Your task to perform on an android device: toggle improve location accuracy Image 0: 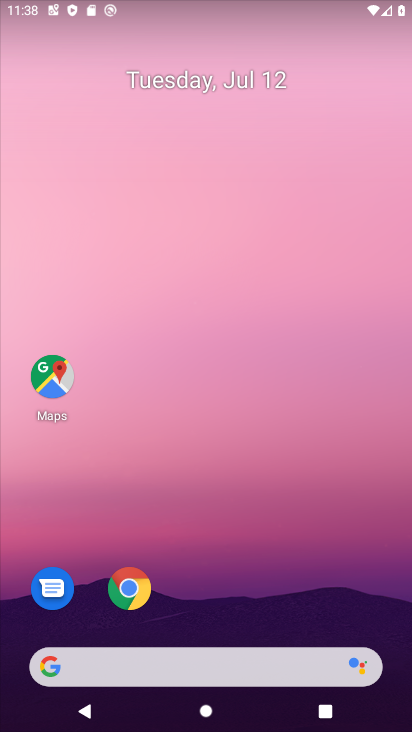
Step 0: drag from (391, 682) to (351, 155)
Your task to perform on an android device: toggle improve location accuracy Image 1: 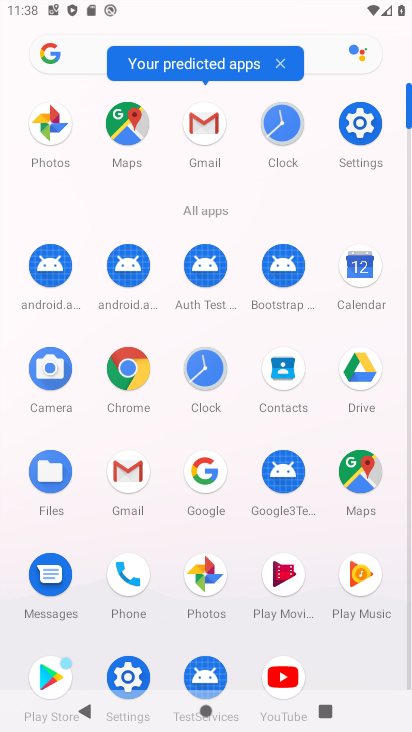
Step 1: click (358, 124)
Your task to perform on an android device: toggle improve location accuracy Image 2: 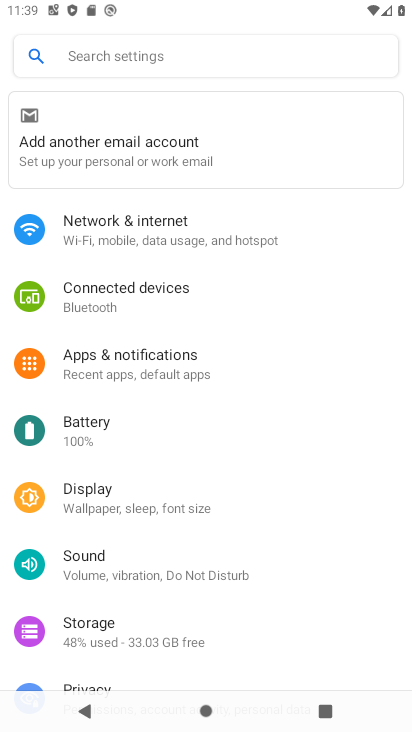
Step 2: drag from (252, 654) to (249, 307)
Your task to perform on an android device: toggle improve location accuracy Image 3: 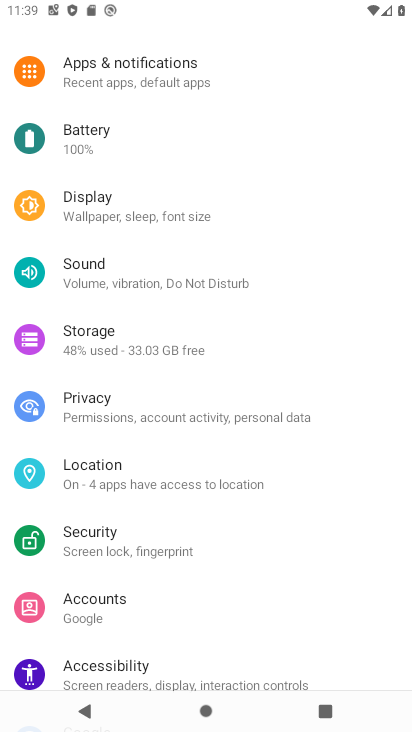
Step 3: click (82, 466)
Your task to perform on an android device: toggle improve location accuracy Image 4: 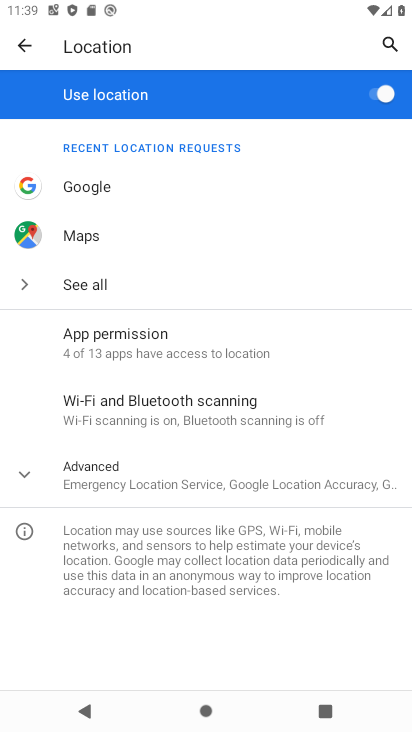
Step 4: click (32, 479)
Your task to perform on an android device: toggle improve location accuracy Image 5: 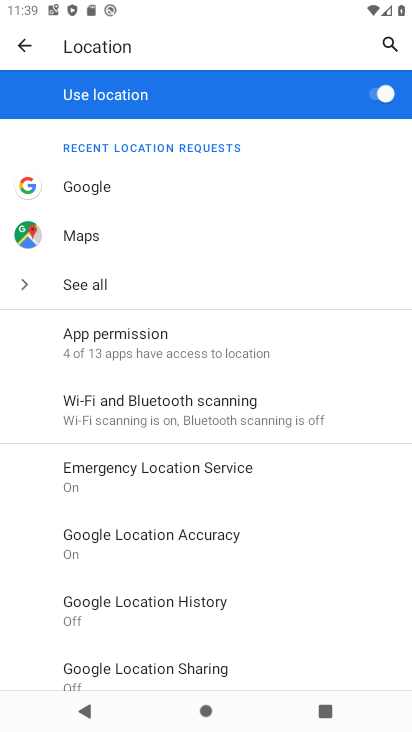
Step 5: click (166, 537)
Your task to perform on an android device: toggle improve location accuracy Image 6: 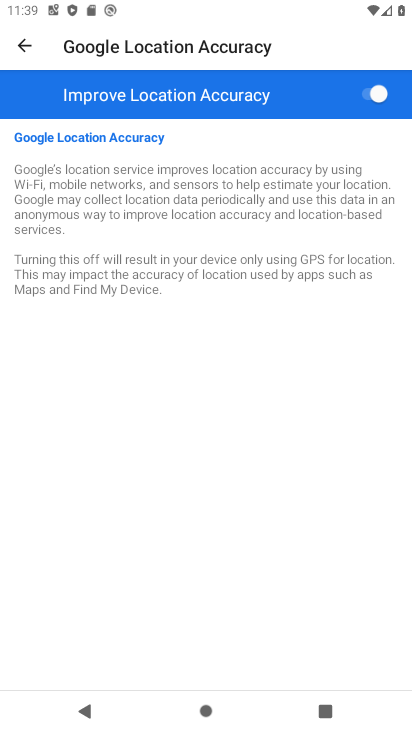
Step 6: click (364, 98)
Your task to perform on an android device: toggle improve location accuracy Image 7: 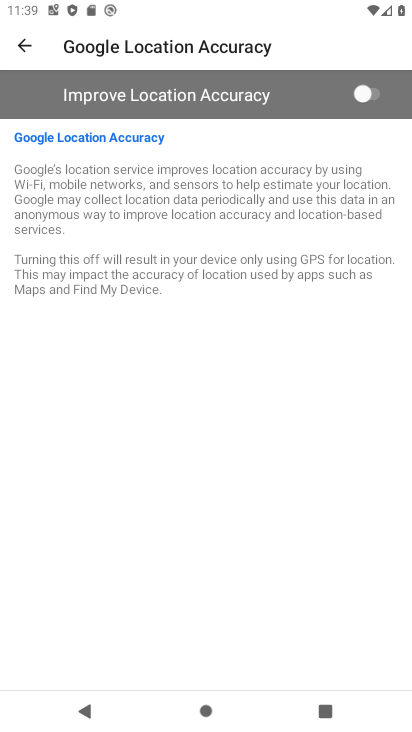
Step 7: task complete